Your task to perform on an android device: What's the weather going to be tomorrow? Image 0: 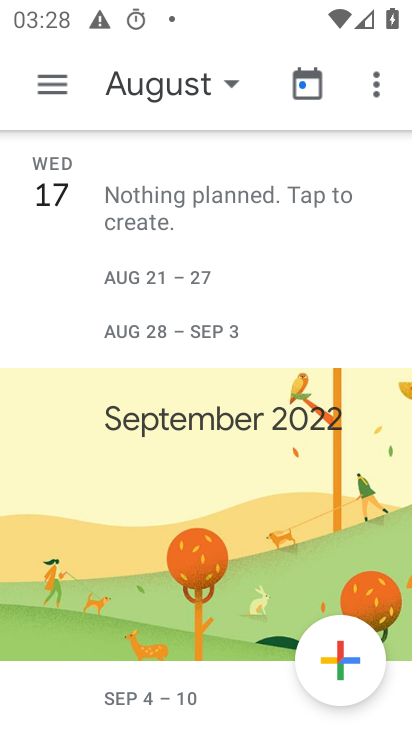
Step 0: press home button
Your task to perform on an android device: What's the weather going to be tomorrow? Image 1: 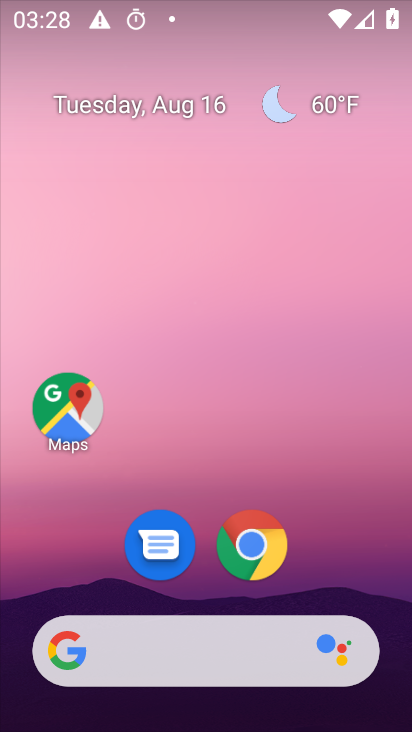
Step 1: drag from (218, 623) to (217, 141)
Your task to perform on an android device: What's the weather going to be tomorrow? Image 2: 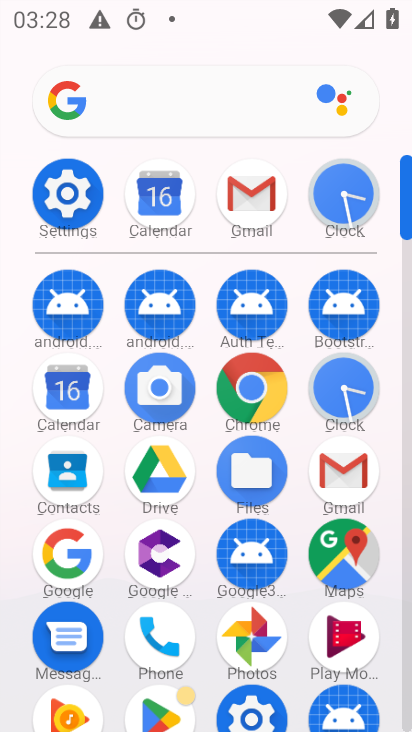
Step 2: click (38, 546)
Your task to perform on an android device: What's the weather going to be tomorrow? Image 3: 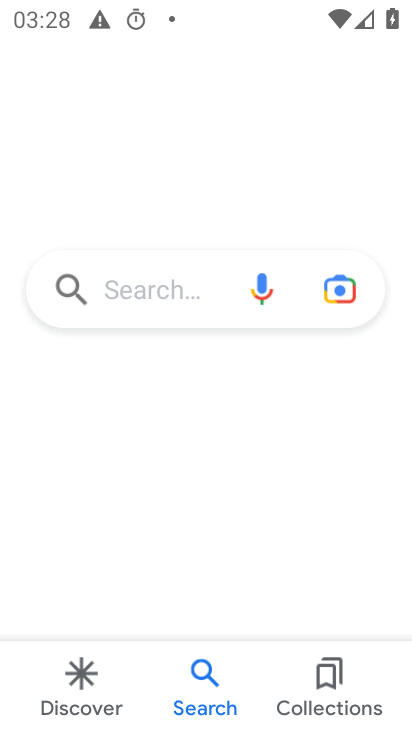
Step 3: click (124, 296)
Your task to perform on an android device: What's the weather going to be tomorrow? Image 4: 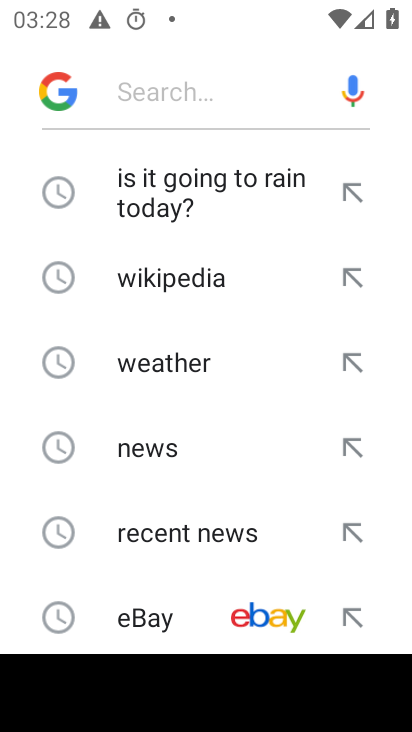
Step 4: drag from (168, 620) to (149, 250)
Your task to perform on an android device: What's the weather going to be tomorrow? Image 5: 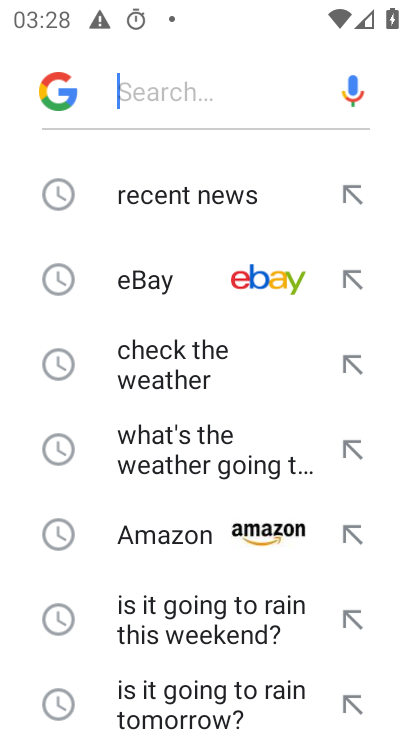
Step 5: click (167, 453)
Your task to perform on an android device: What's the weather going to be tomorrow? Image 6: 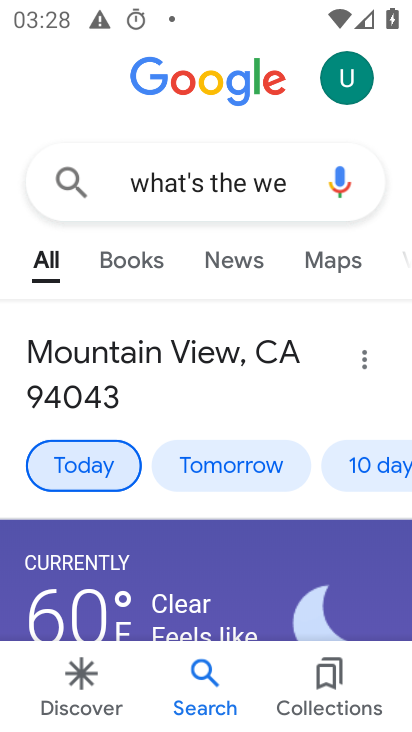
Step 6: click (197, 467)
Your task to perform on an android device: What's the weather going to be tomorrow? Image 7: 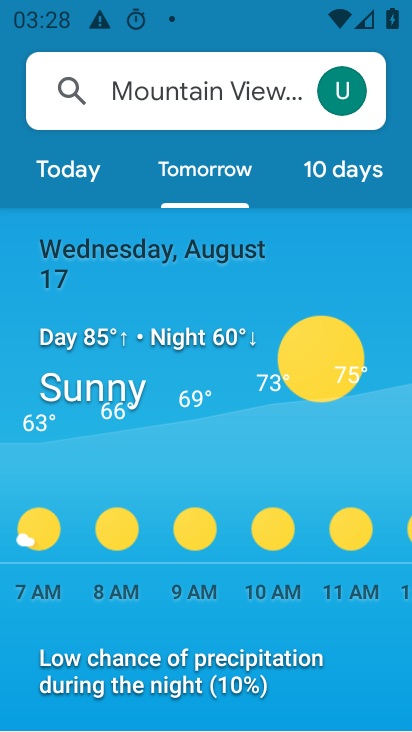
Step 7: task complete